Your task to perform on an android device: turn off javascript in the chrome app Image 0: 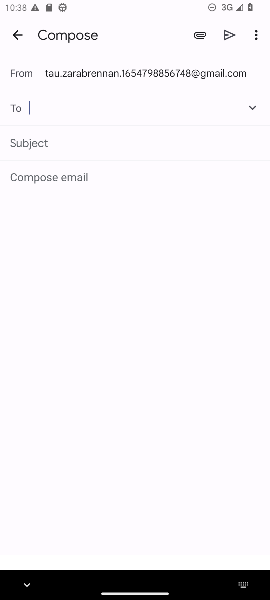
Step 0: press home button
Your task to perform on an android device: turn off javascript in the chrome app Image 1: 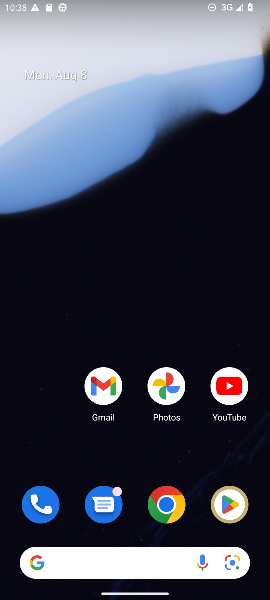
Step 1: click (168, 504)
Your task to perform on an android device: turn off javascript in the chrome app Image 2: 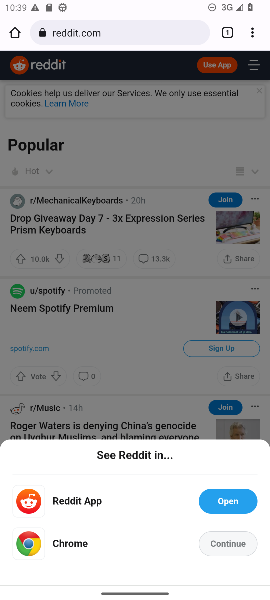
Step 2: click (252, 30)
Your task to perform on an android device: turn off javascript in the chrome app Image 3: 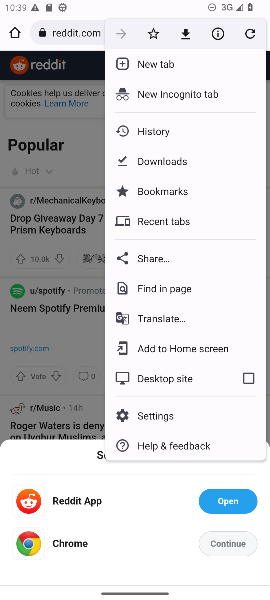
Step 3: click (158, 418)
Your task to perform on an android device: turn off javascript in the chrome app Image 4: 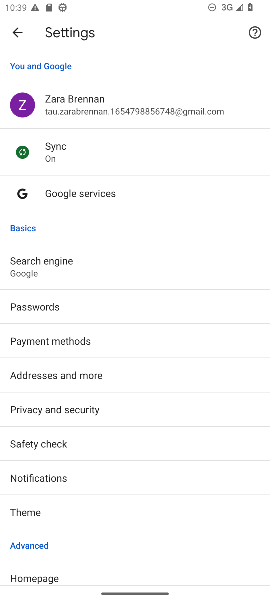
Step 4: drag from (113, 383) to (120, 238)
Your task to perform on an android device: turn off javascript in the chrome app Image 5: 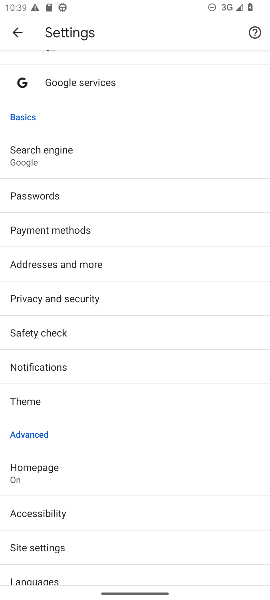
Step 5: drag from (107, 526) to (126, 359)
Your task to perform on an android device: turn off javascript in the chrome app Image 6: 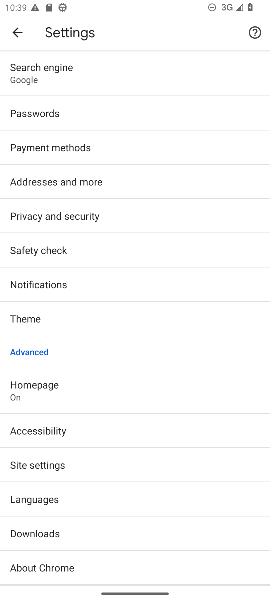
Step 6: click (25, 466)
Your task to perform on an android device: turn off javascript in the chrome app Image 7: 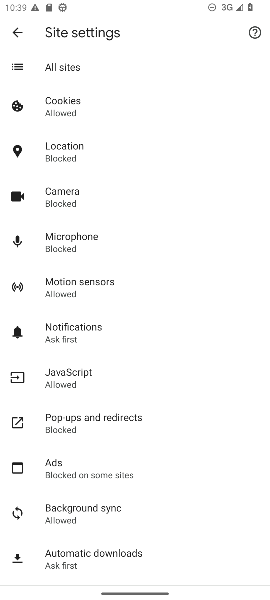
Step 7: click (71, 381)
Your task to perform on an android device: turn off javascript in the chrome app Image 8: 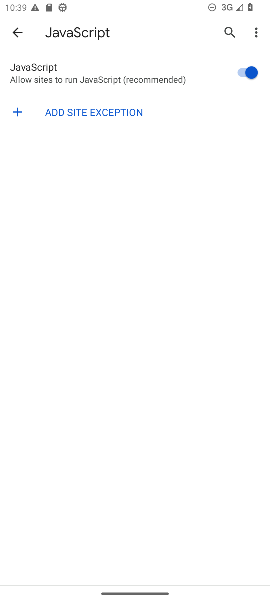
Step 8: click (224, 72)
Your task to perform on an android device: turn off javascript in the chrome app Image 9: 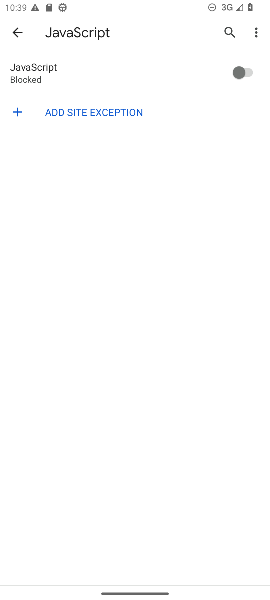
Step 9: task complete